Your task to perform on an android device: Do I have any events this weekend? Image 0: 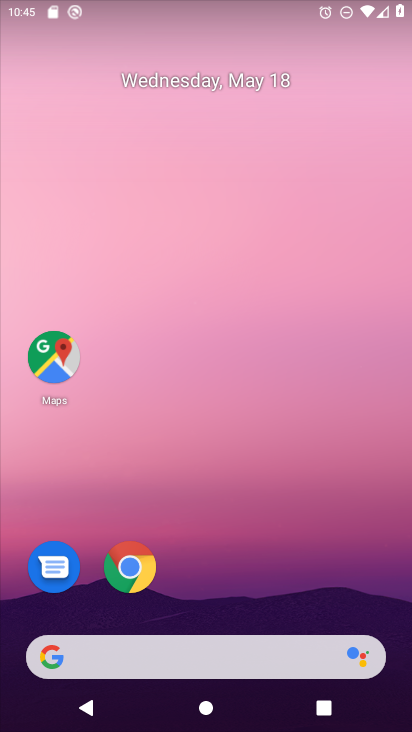
Step 0: drag from (282, 693) to (289, 243)
Your task to perform on an android device: Do I have any events this weekend? Image 1: 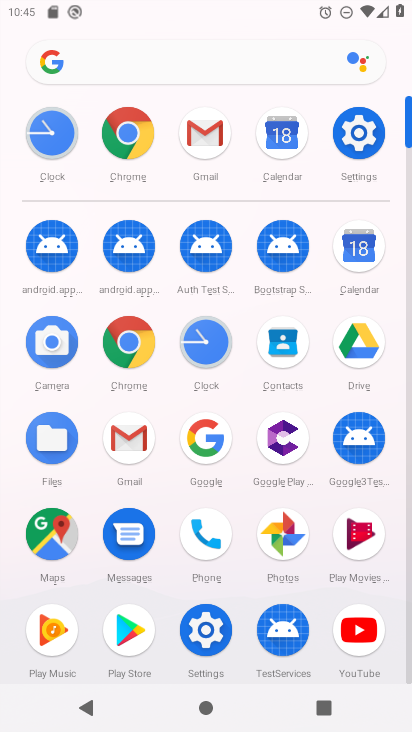
Step 1: click (359, 257)
Your task to perform on an android device: Do I have any events this weekend? Image 2: 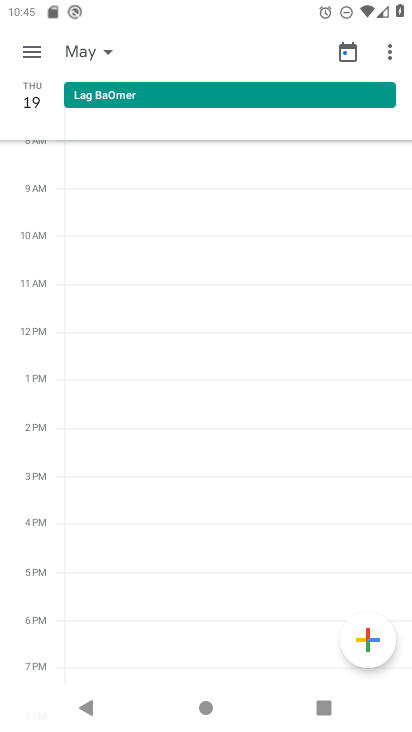
Step 2: click (25, 41)
Your task to perform on an android device: Do I have any events this weekend? Image 3: 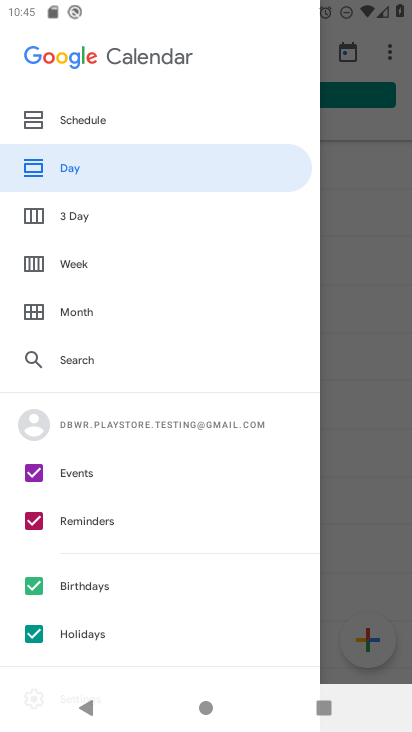
Step 3: click (70, 268)
Your task to perform on an android device: Do I have any events this weekend? Image 4: 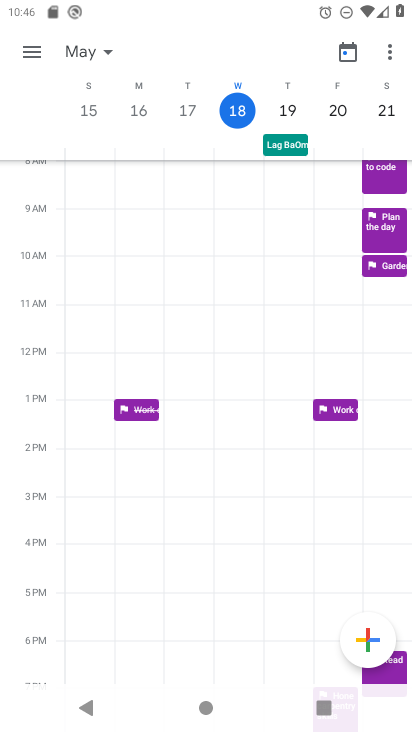
Step 4: task complete